Your task to perform on an android device: change the upload size in google photos Image 0: 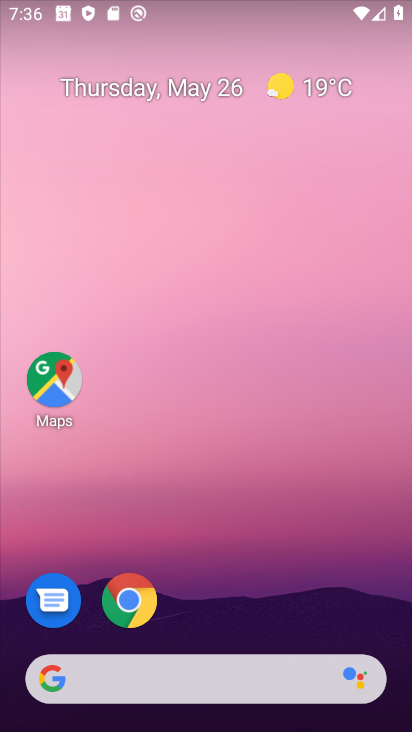
Step 0: drag from (292, 706) to (197, 170)
Your task to perform on an android device: change the upload size in google photos Image 1: 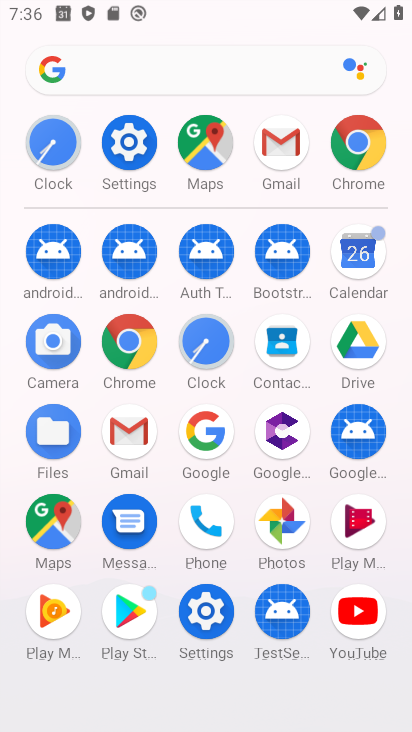
Step 1: click (271, 515)
Your task to perform on an android device: change the upload size in google photos Image 2: 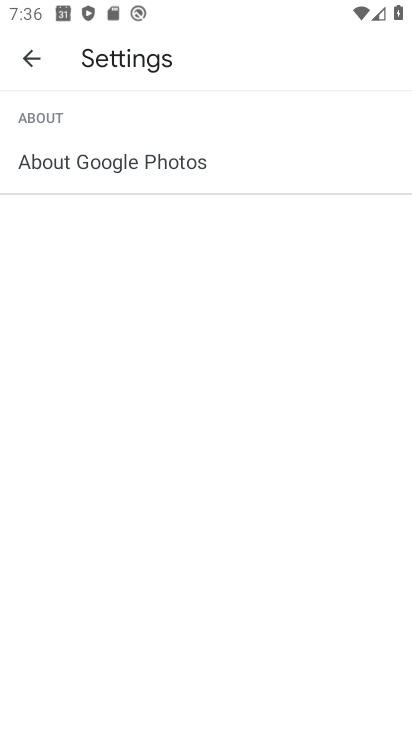
Step 2: click (32, 61)
Your task to perform on an android device: change the upload size in google photos Image 3: 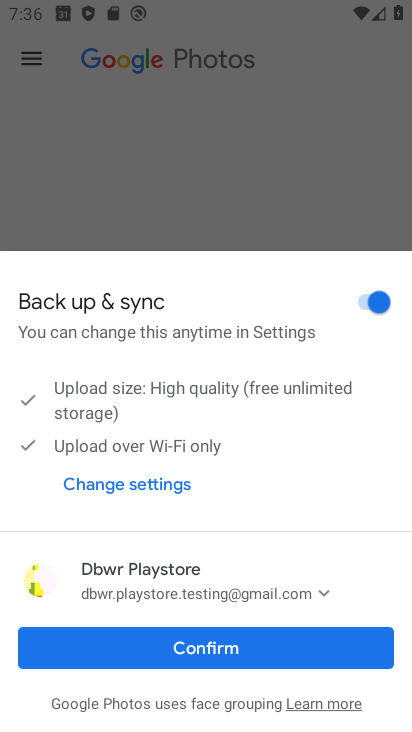
Step 3: click (282, 643)
Your task to perform on an android device: change the upload size in google photos Image 4: 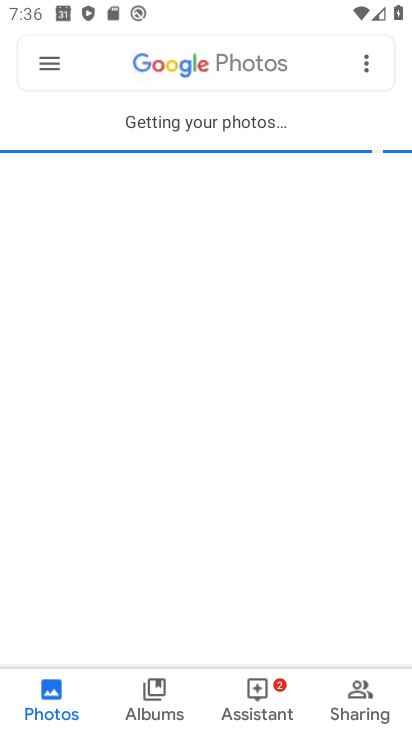
Step 4: click (45, 74)
Your task to perform on an android device: change the upload size in google photos Image 5: 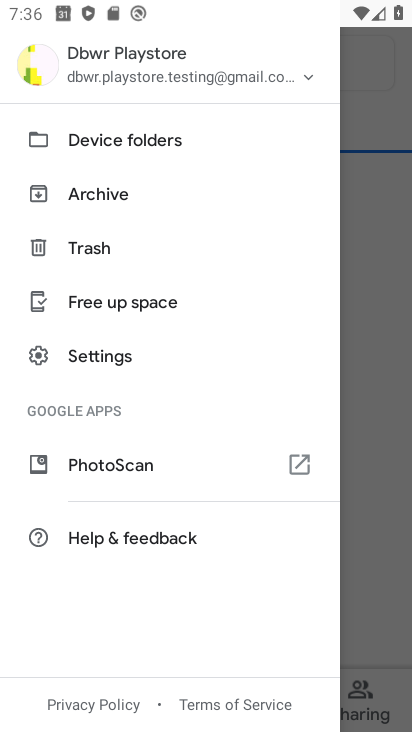
Step 5: click (117, 348)
Your task to perform on an android device: change the upload size in google photos Image 6: 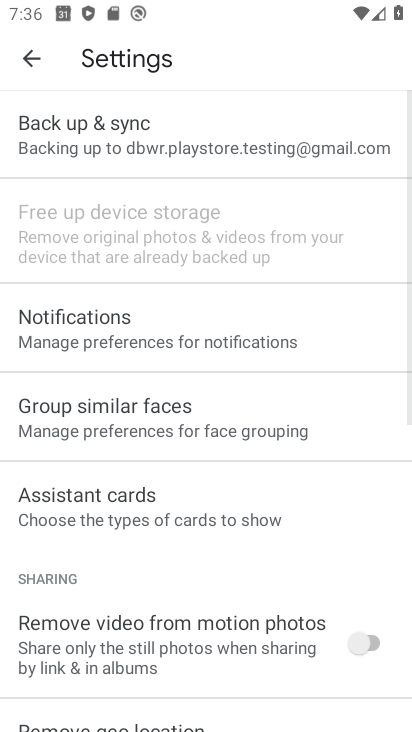
Step 6: click (164, 139)
Your task to perform on an android device: change the upload size in google photos Image 7: 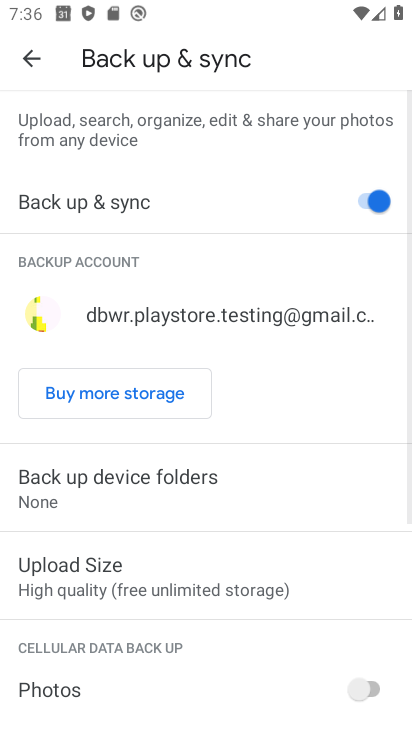
Step 7: click (143, 564)
Your task to perform on an android device: change the upload size in google photos Image 8: 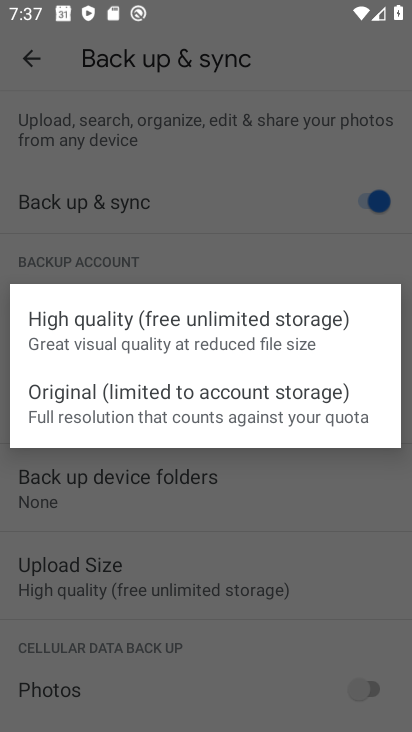
Step 8: task complete